Your task to perform on an android device: check google app version Image 0: 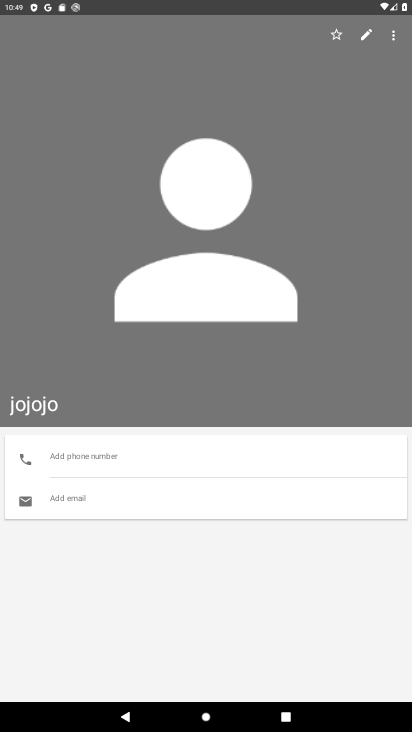
Step 0: press home button
Your task to perform on an android device: check google app version Image 1: 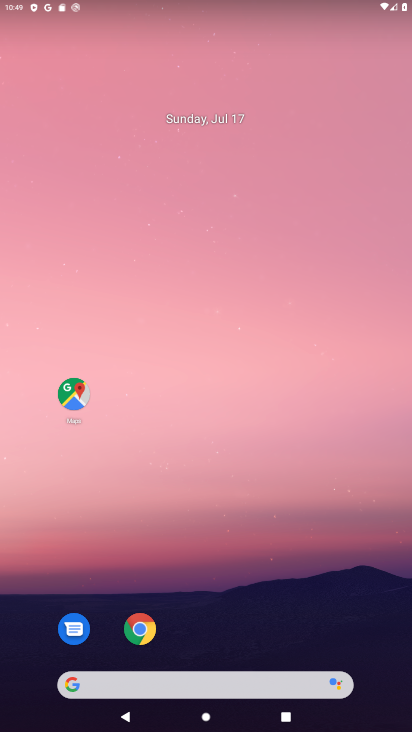
Step 1: drag from (209, 672) to (203, 209)
Your task to perform on an android device: check google app version Image 2: 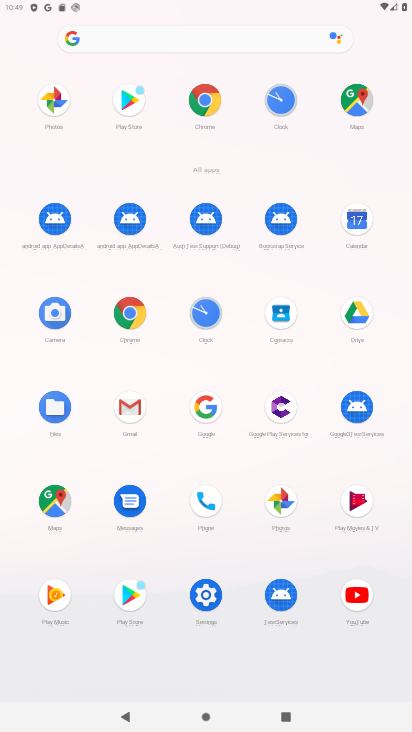
Step 2: click (202, 407)
Your task to perform on an android device: check google app version Image 3: 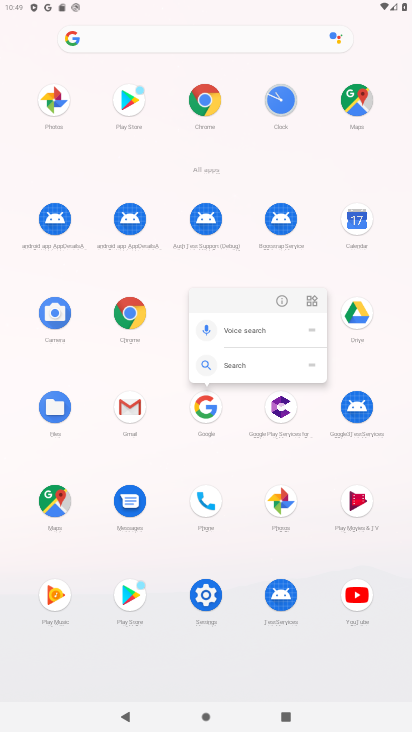
Step 3: click (281, 298)
Your task to perform on an android device: check google app version Image 4: 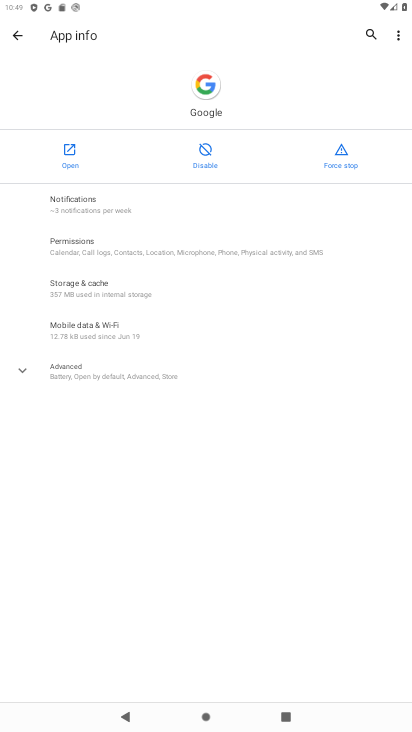
Step 4: click (45, 366)
Your task to perform on an android device: check google app version Image 5: 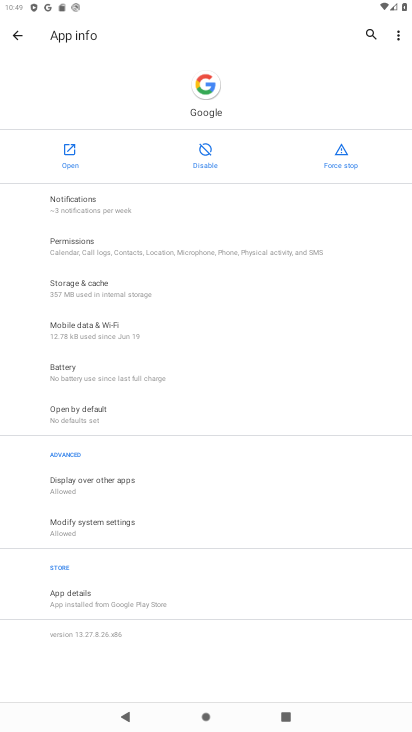
Step 5: task complete